Your task to perform on an android device: When is my next meeting? Image 0: 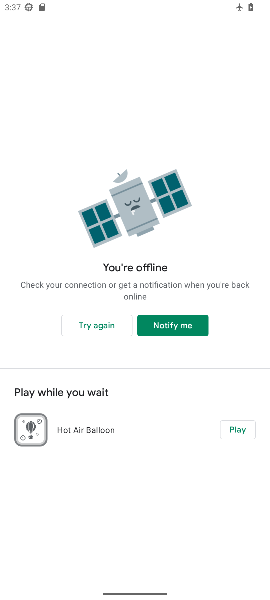
Step 0: press home button
Your task to perform on an android device: When is my next meeting? Image 1: 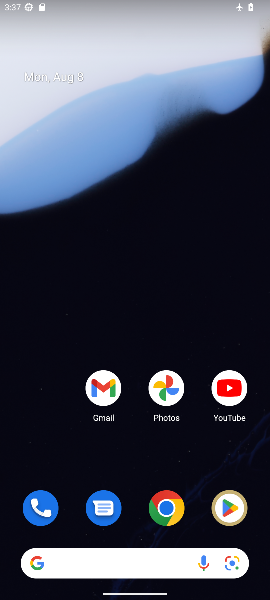
Step 1: drag from (74, 451) to (113, 89)
Your task to perform on an android device: When is my next meeting? Image 2: 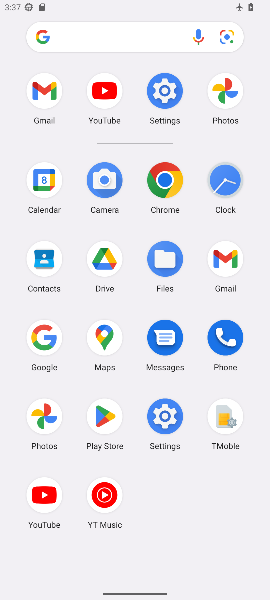
Step 2: click (44, 173)
Your task to perform on an android device: When is my next meeting? Image 3: 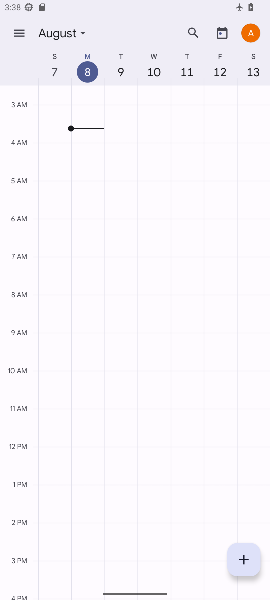
Step 3: task complete